Your task to perform on an android device: turn off wifi Image 0: 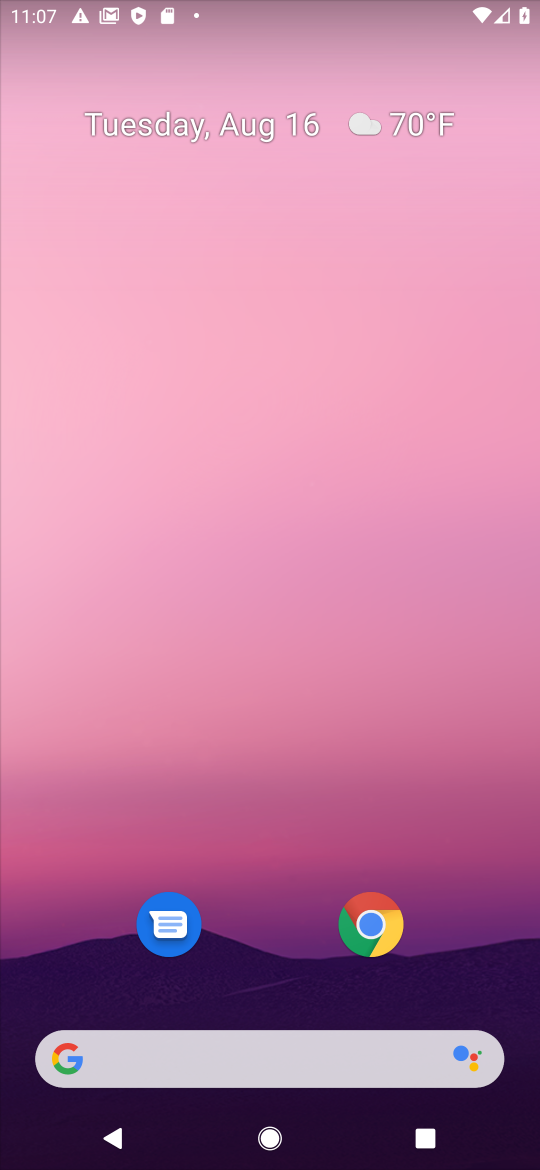
Step 0: drag from (231, 14) to (248, 994)
Your task to perform on an android device: turn off wifi Image 1: 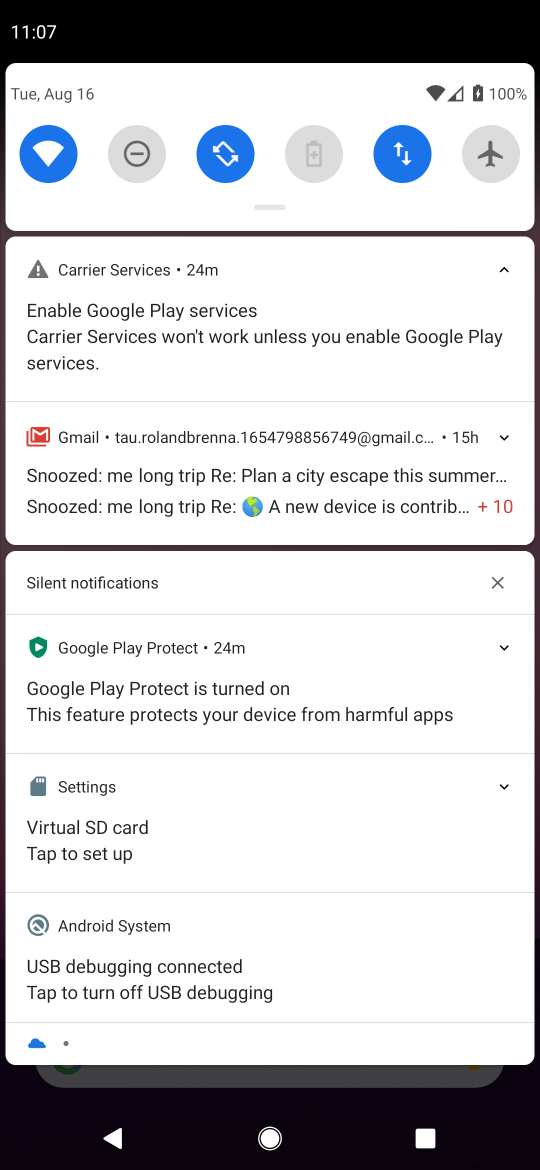
Step 1: click (52, 154)
Your task to perform on an android device: turn off wifi Image 2: 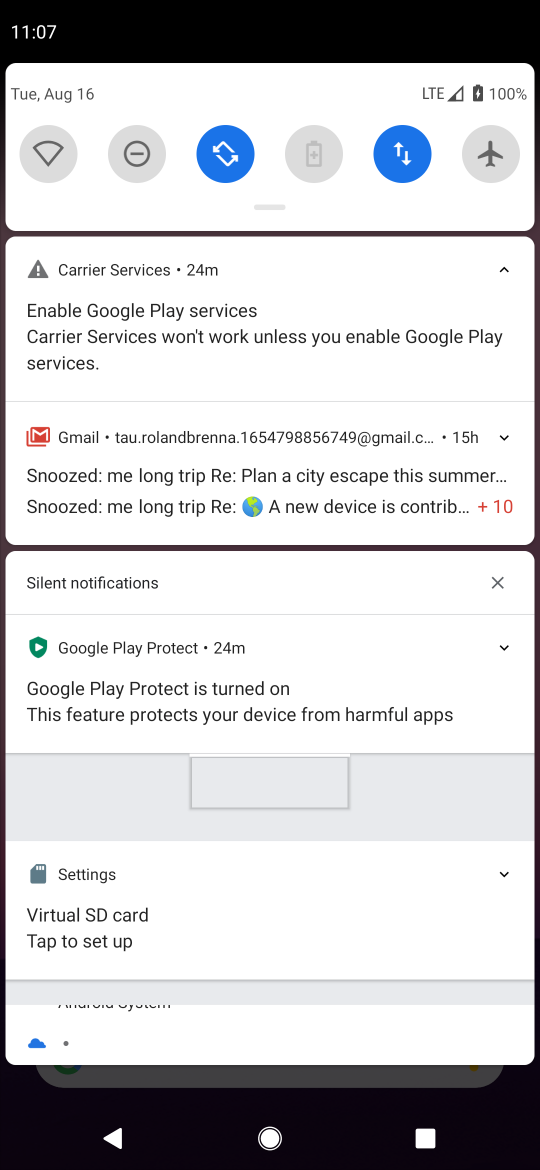
Step 2: task complete